Your task to perform on an android device: View the shopping cart on costco.com. Add "razer nari" to the cart on costco.com Image 0: 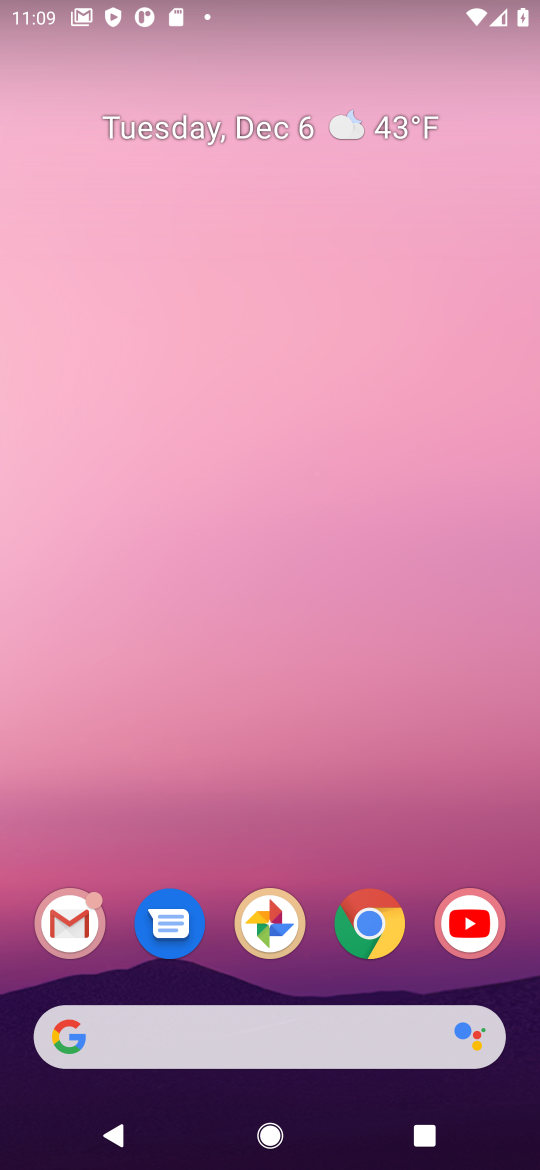
Step 0: task complete